Your task to perform on an android device: check battery use Image 0: 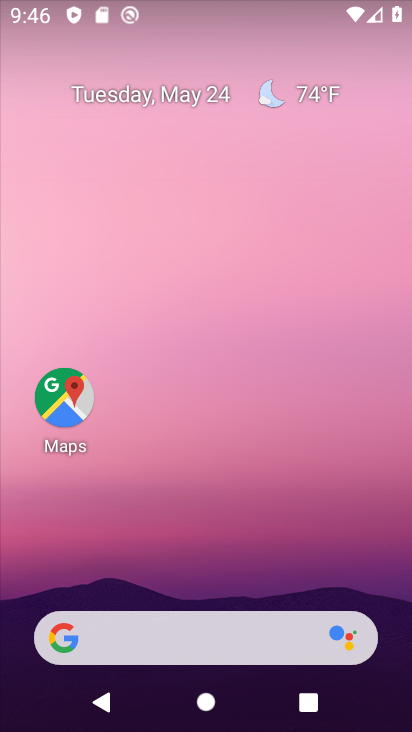
Step 0: drag from (197, 584) to (117, 74)
Your task to perform on an android device: check battery use Image 1: 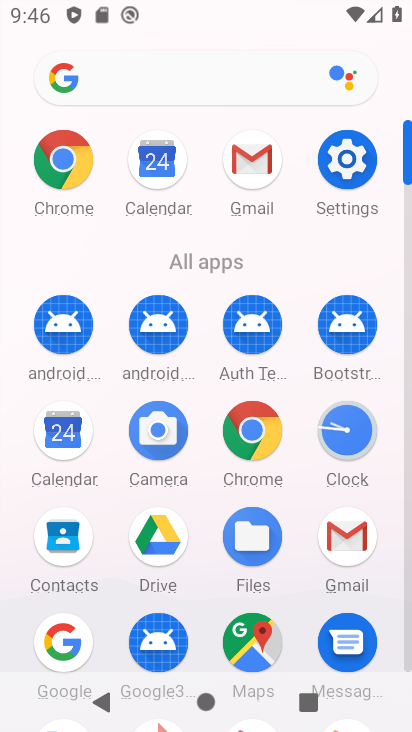
Step 1: click (354, 148)
Your task to perform on an android device: check battery use Image 2: 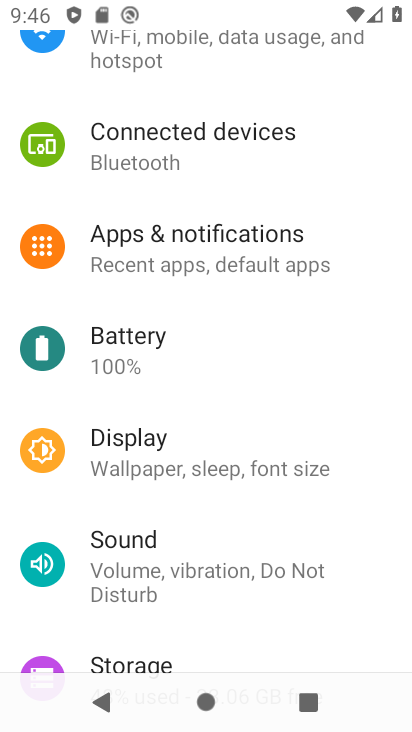
Step 2: click (156, 350)
Your task to perform on an android device: check battery use Image 3: 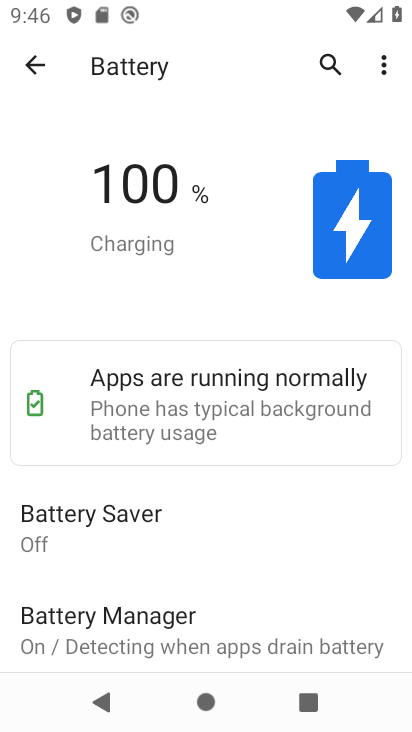
Step 3: click (376, 50)
Your task to perform on an android device: check battery use Image 4: 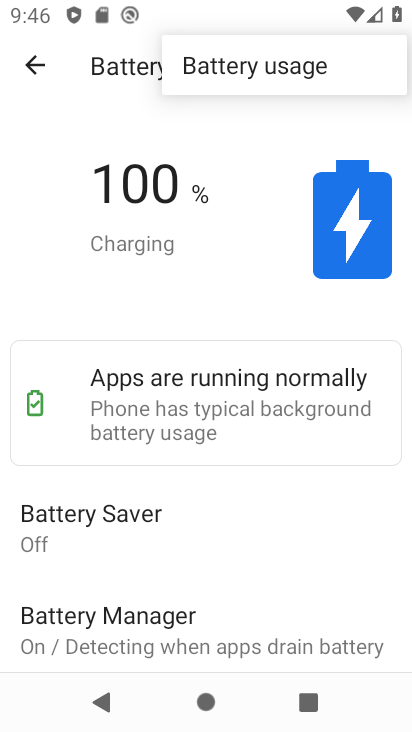
Step 4: click (321, 59)
Your task to perform on an android device: check battery use Image 5: 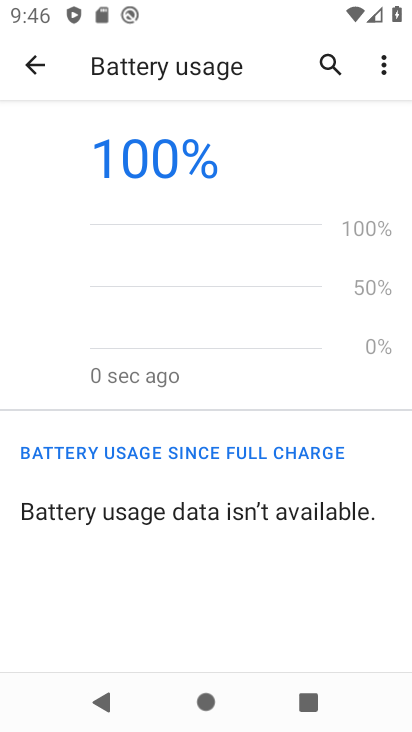
Step 5: task complete